Your task to perform on an android device: change your default location settings in chrome Image 0: 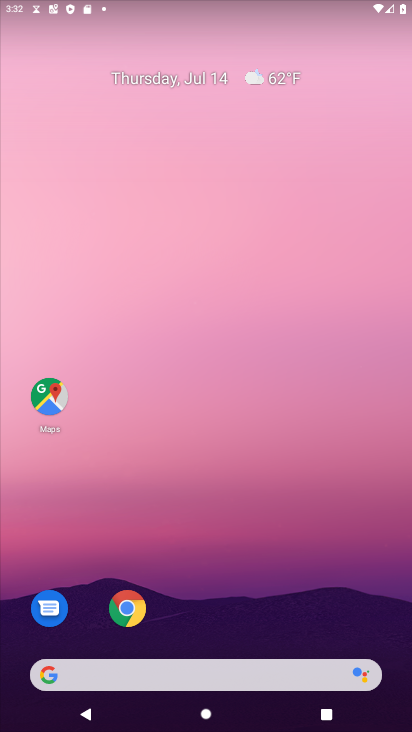
Step 0: click (132, 626)
Your task to perform on an android device: change your default location settings in chrome Image 1: 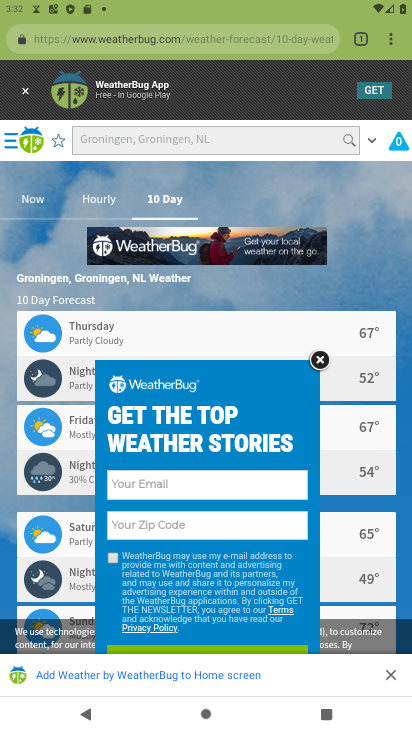
Step 1: drag from (391, 40) to (305, 470)
Your task to perform on an android device: change your default location settings in chrome Image 2: 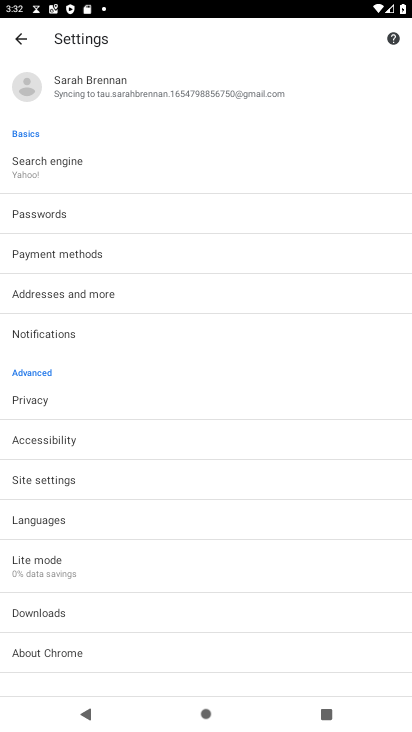
Step 2: click (74, 484)
Your task to perform on an android device: change your default location settings in chrome Image 3: 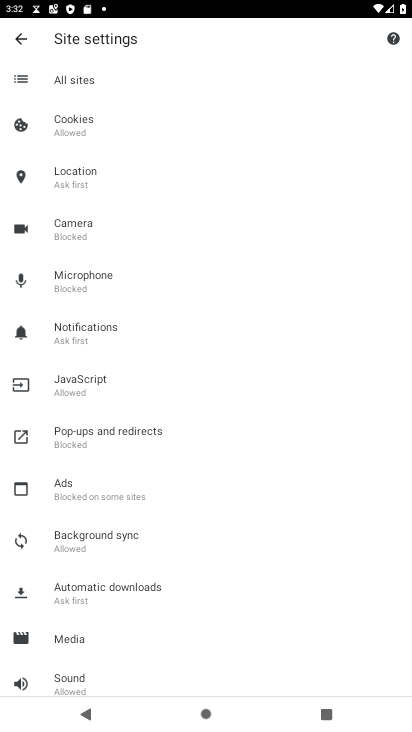
Step 3: click (79, 176)
Your task to perform on an android device: change your default location settings in chrome Image 4: 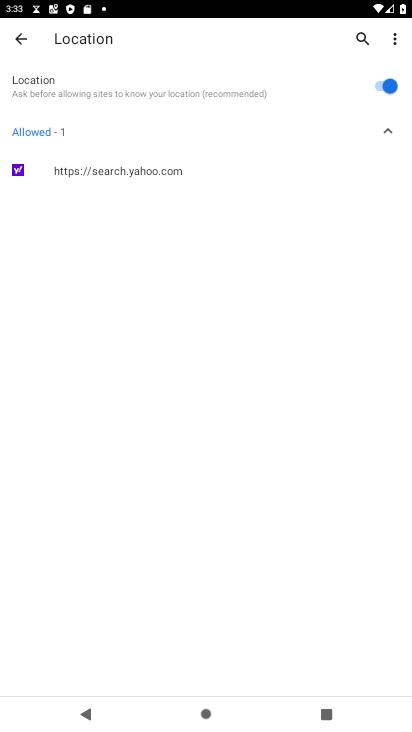
Step 4: click (381, 90)
Your task to perform on an android device: change your default location settings in chrome Image 5: 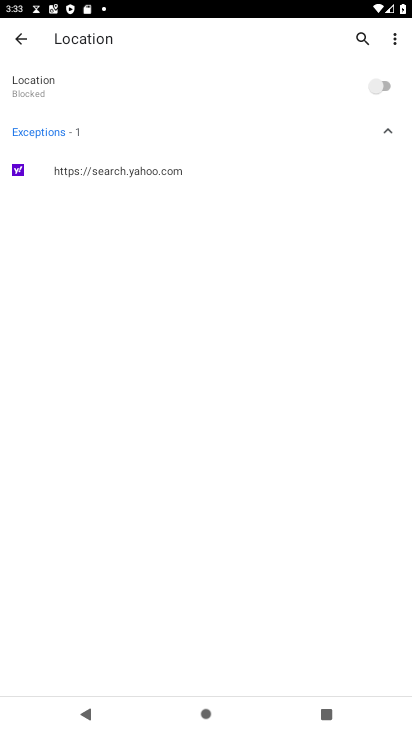
Step 5: task complete